Your task to perform on an android device: turn off picture-in-picture Image 0: 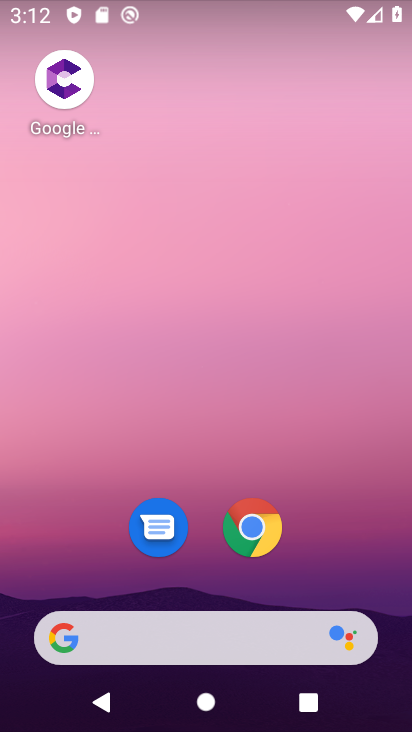
Step 0: drag from (334, 537) to (354, 100)
Your task to perform on an android device: turn off picture-in-picture Image 1: 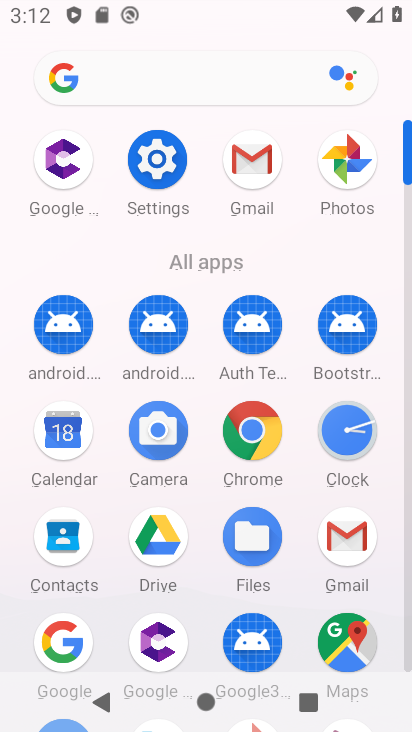
Step 1: drag from (305, 621) to (304, 559)
Your task to perform on an android device: turn off picture-in-picture Image 2: 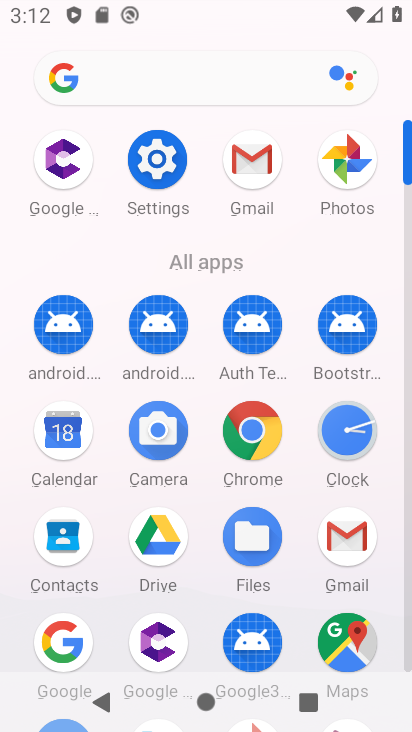
Step 2: click (166, 168)
Your task to perform on an android device: turn off picture-in-picture Image 3: 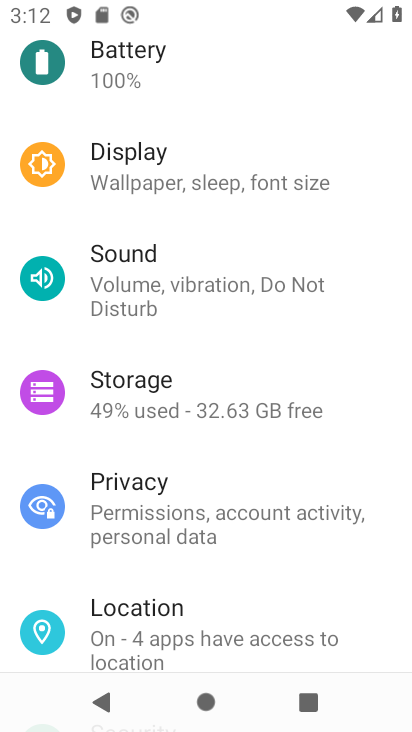
Step 3: drag from (161, 249) to (103, 623)
Your task to perform on an android device: turn off picture-in-picture Image 4: 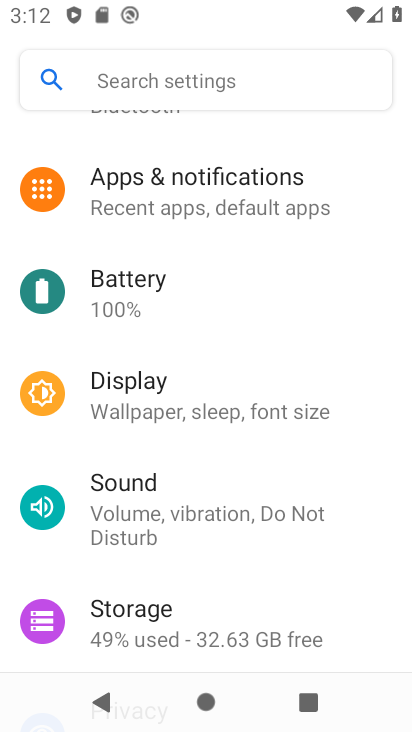
Step 4: drag from (243, 206) to (236, 599)
Your task to perform on an android device: turn off picture-in-picture Image 5: 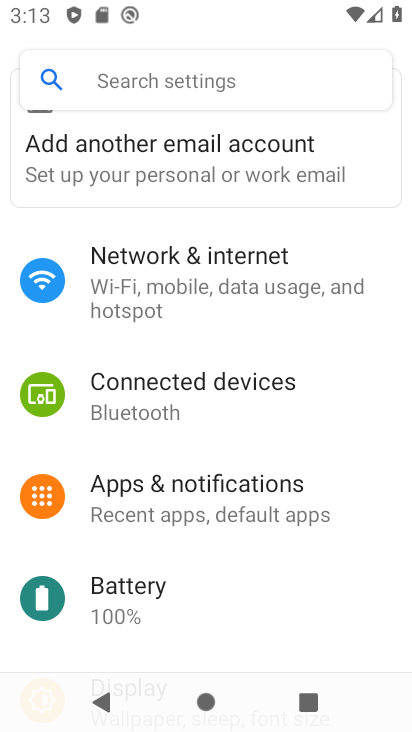
Step 5: click (286, 507)
Your task to perform on an android device: turn off picture-in-picture Image 6: 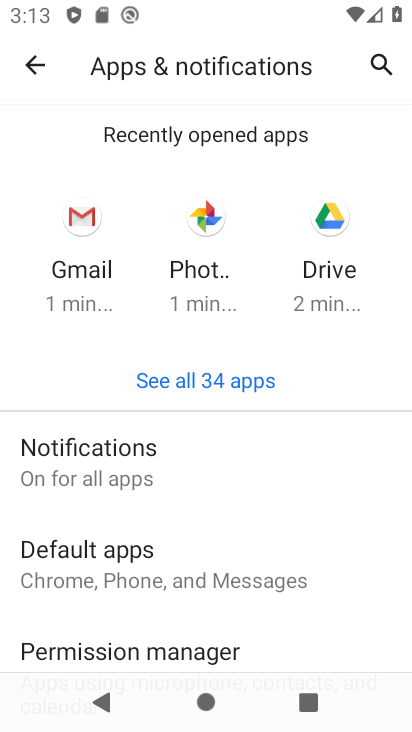
Step 6: drag from (270, 611) to (252, 278)
Your task to perform on an android device: turn off picture-in-picture Image 7: 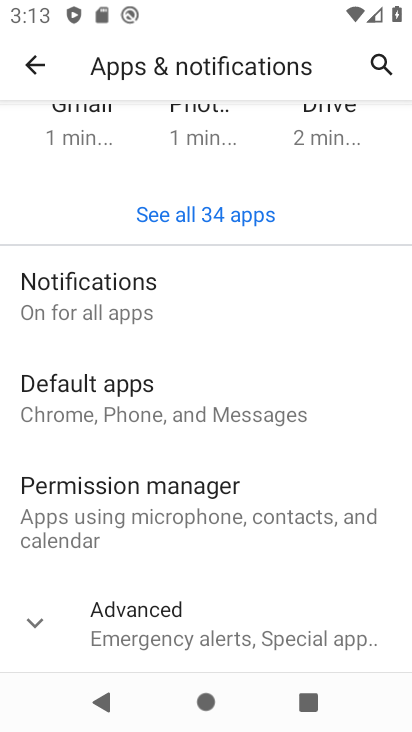
Step 7: click (22, 618)
Your task to perform on an android device: turn off picture-in-picture Image 8: 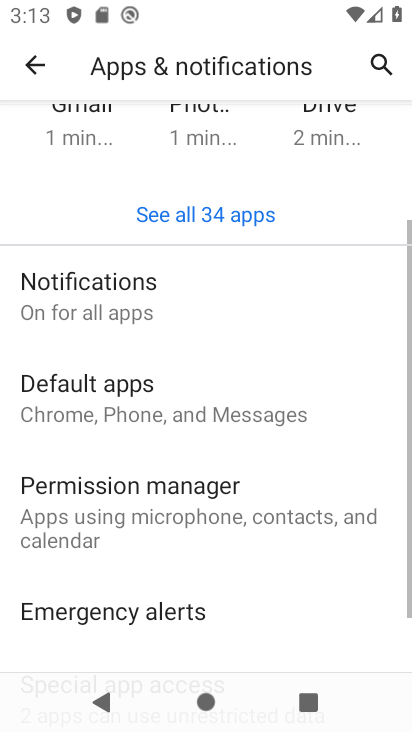
Step 8: drag from (103, 610) to (128, 246)
Your task to perform on an android device: turn off picture-in-picture Image 9: 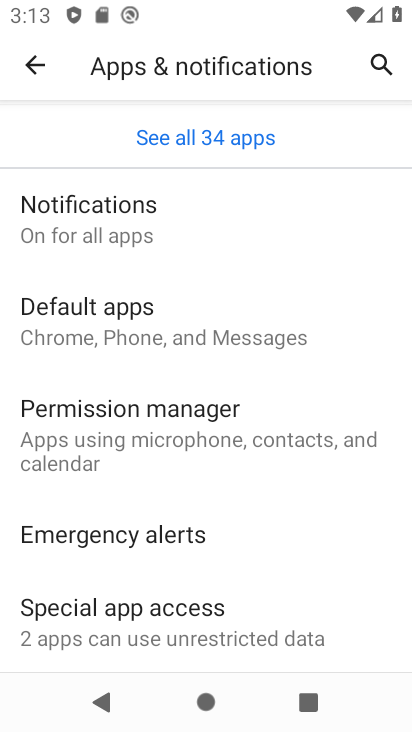
Step 9: click (201, 626)
Your task to perform on an android device: turn off picture-in-picture Image 10: 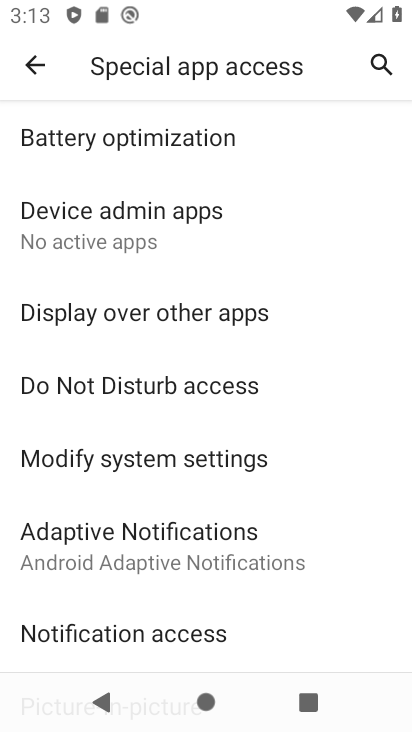
Step 10: drag from (251, 541) to (249, 290)
Your task to perform on an android device: turn off picture-in-picture Image 11: 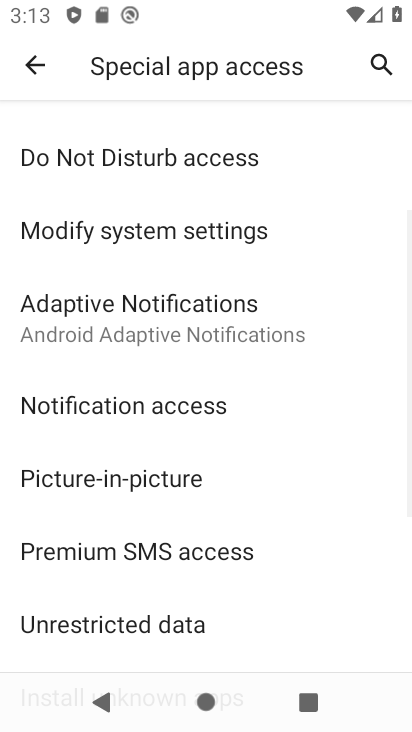
Step 11: click (210, 474)
Your task to perform on an android device: turn off picture-in-picture Image 12: 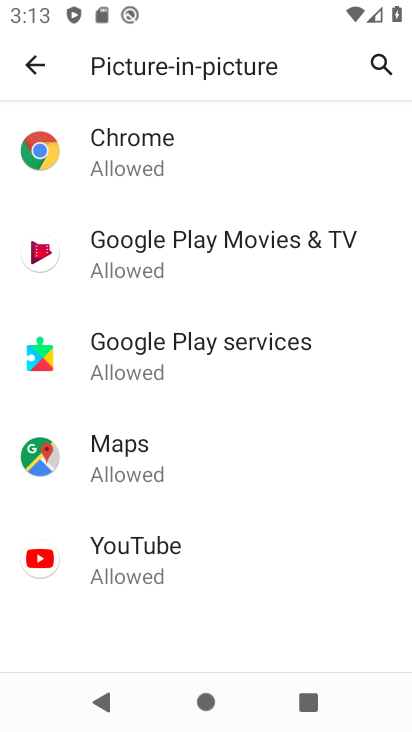
Step 12: click (171, 166)
Your task to perform on an android device: turn off picture-in-picture Image 13: 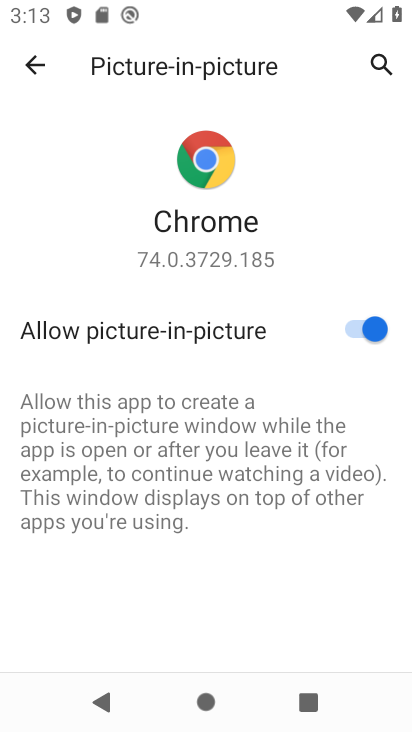
Step 13: click (370, 327)
Your task to perform on an android device: turn off picture-in-picture Image 14: 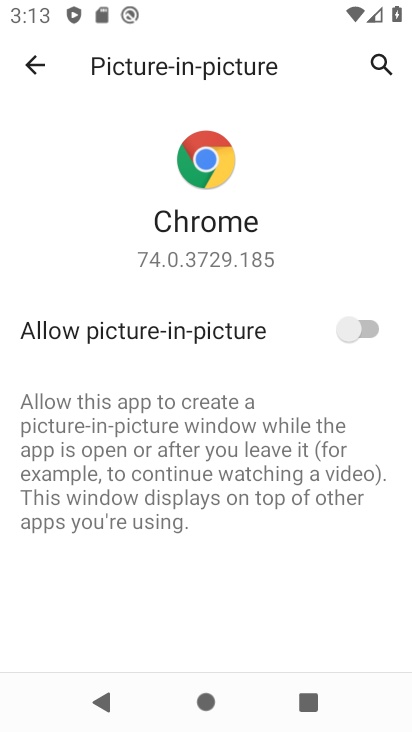
Step 14: task complete